Your task to perform on an android device: open a bookmark in the chrome app Image 0: 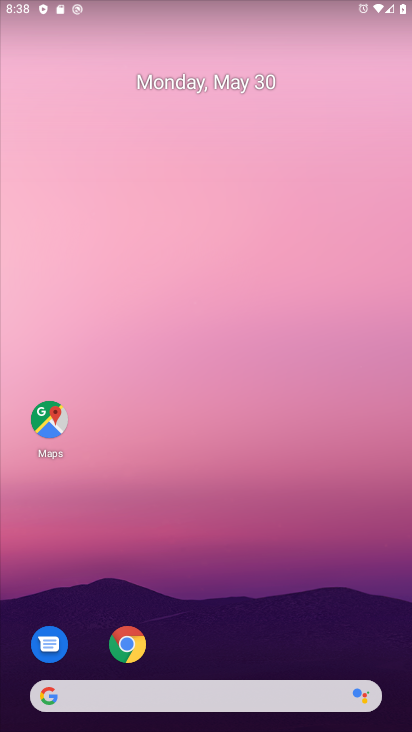
Step 0: click (127, 645)
Your task to perform on an android device: open a bookmark in the chrome app Image 1: 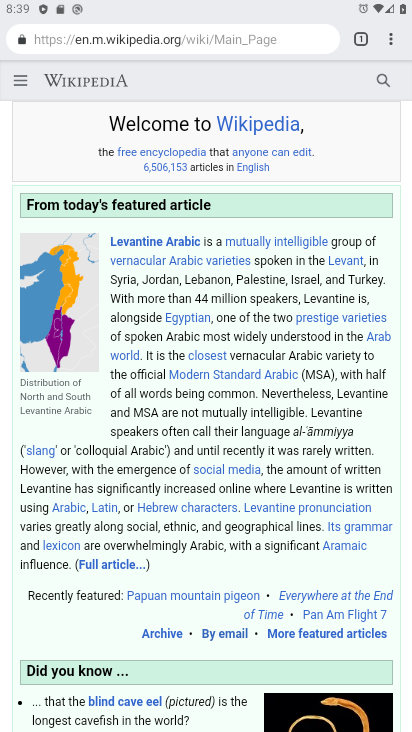
Step 1: click (390, 42)
Your task to perform on an android device: open a bookmark in the chrome app Image 2: 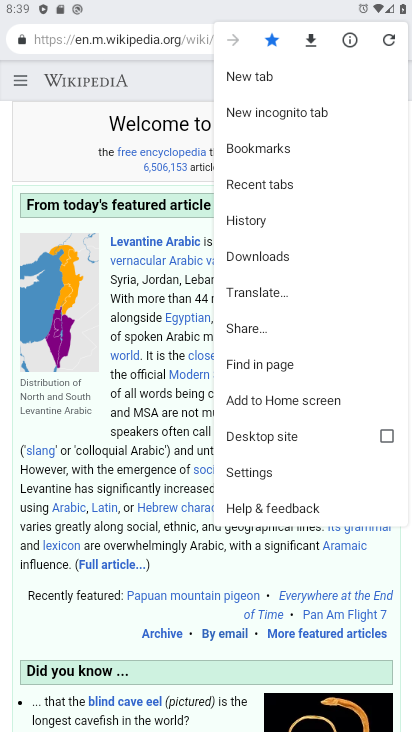
Step 2: click (247, 150)
Your task to perform on an android device: open a bookmark in the chrome app Image 3: 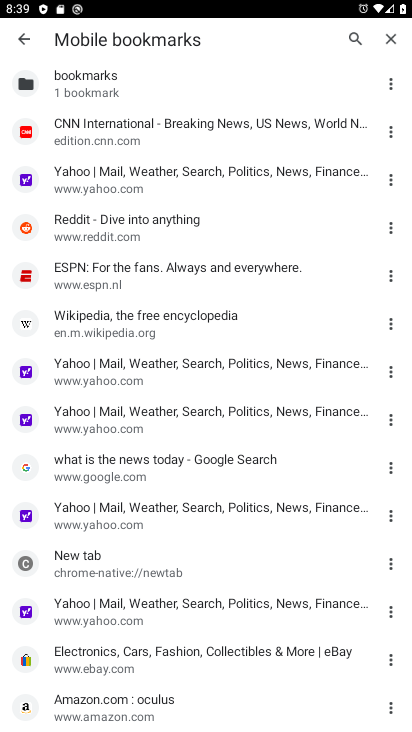
Step 3: task complete